Your task to perform on an android device: turn on notifications settings in the gmail app Image 0: 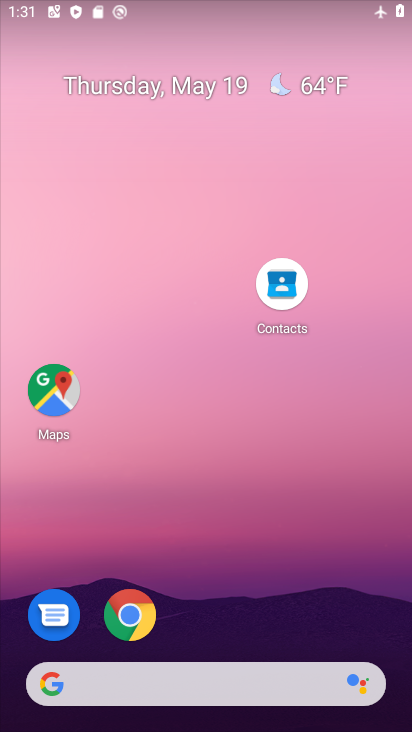
Step 0: drag from (241, 512) to (260, 80)
Your task to perform on an android device: turn on notifications settings in the gmail app Image 1: 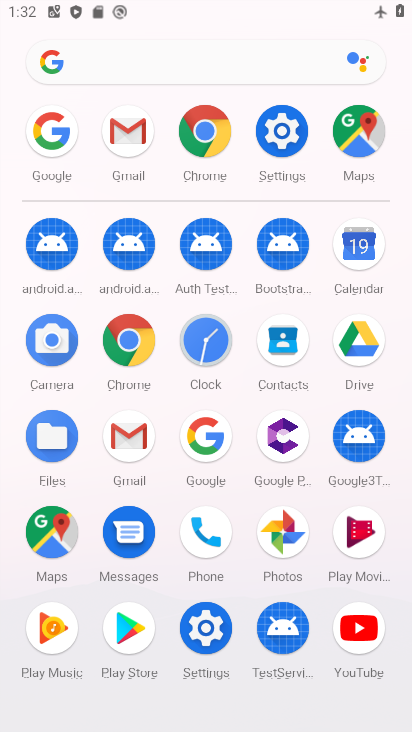
Step 1: click (127, 452)
Your task to perform on an android device: turn on notifications settings in the gmail app Image 2: 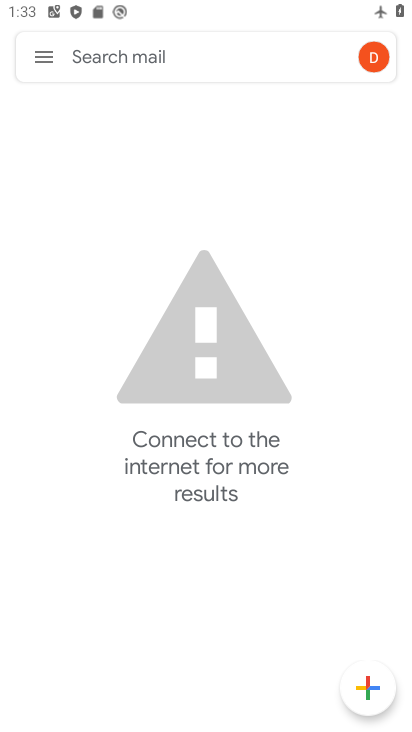
Step 2: click (42, 53)
Your task to perform on an android device: turn on notifications settings in the gmail app Image 3: 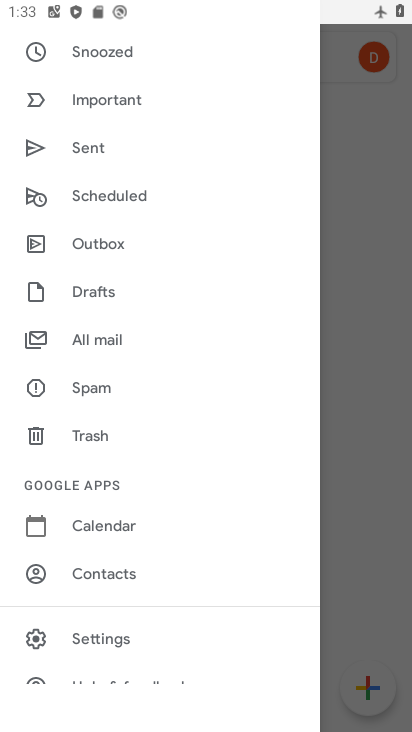
Step 3: click (93, 649)
Your task to perform on an android device: turn on notifications settings in the gmail app Image 4: 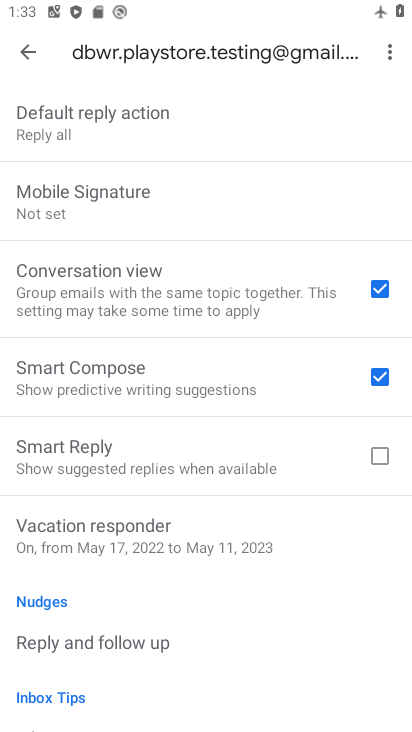
Step 4: drag from (168, 545) to (201, 309)
Your task to perform on an android device: turn on notifications settings in the gmail app Image 5: 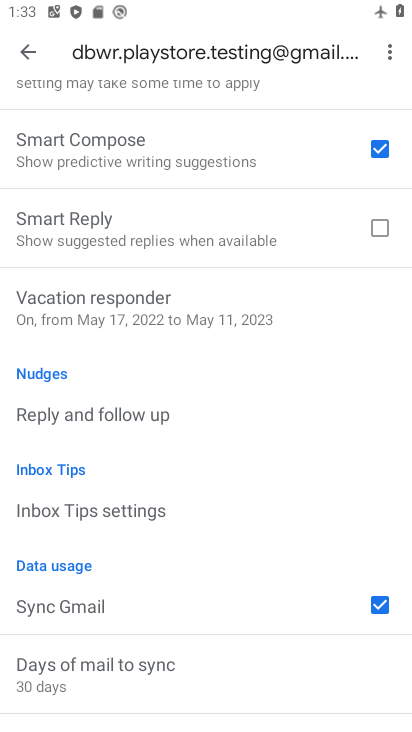
Step 5: drag from (193, 506) to (209, 222)
Your task to perform on an android device: turn on notifications settings in the gmail app Image 6: 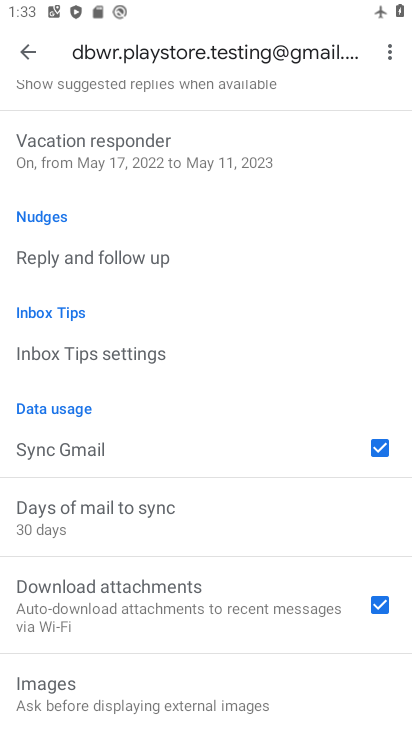
Step 6: click (27, 65)
Your task to perform on an android device: turn on notifications settings in the gmail app Image 7: 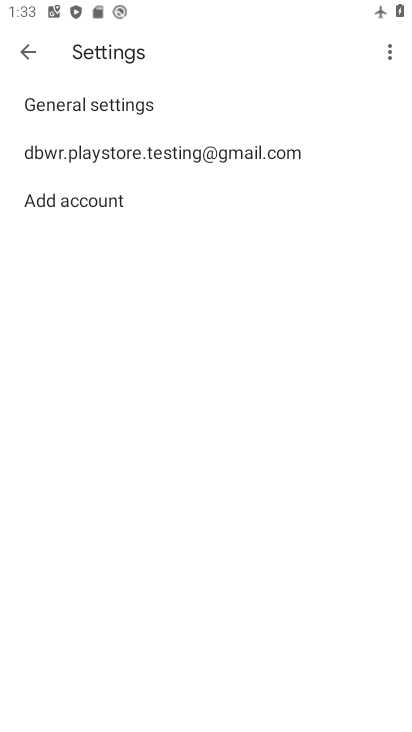
Step 7: click (122, 112)
Your task to perform on an android device: turn on notifications settings in the gmail app Image 8: 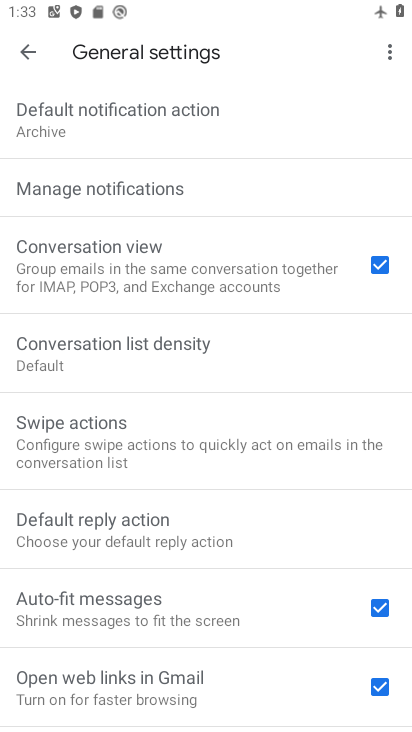
Step 8: click (116, 175)
Your task to perform on an android device: turn on notifications settings in the gmail app Image 9: 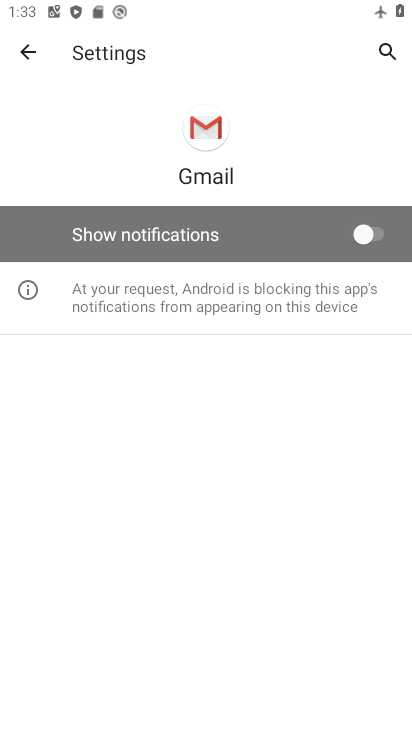
Step 9: click (245, 252)
Your task to perform on an android device: turn on notifications settings in the gmail app Image 10: 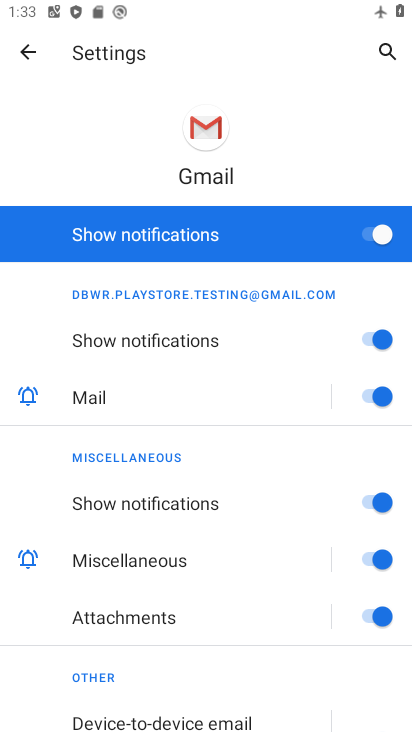
Step 10: task complete